Your task to perform on an android device: allow cookies in the chrome app Image 0: 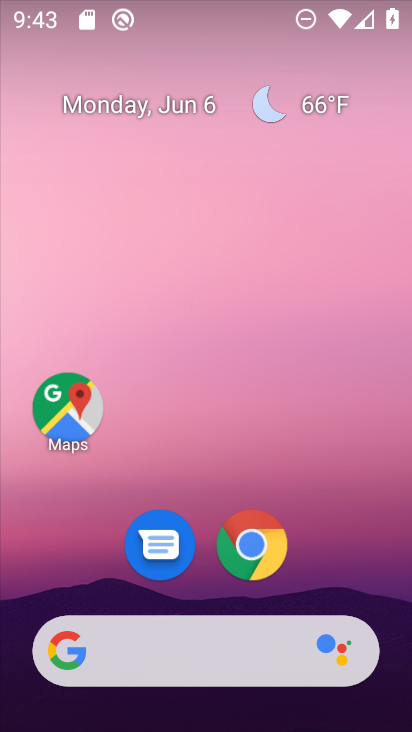
Step 0: drag from (253, 391) to (308, 196)
Your task to perform on an android device: allow cookies in the chrome app Image 1: 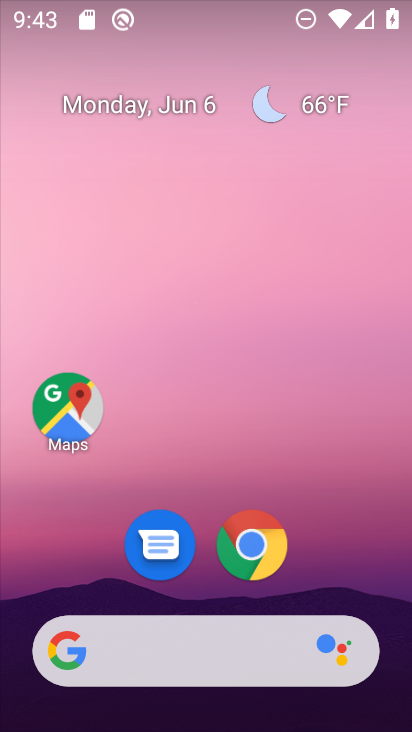
Step 1: drag from (200, 590) to (271, 152)
Your task to perform on an android device: allow cookies in the chrome app Image 2: 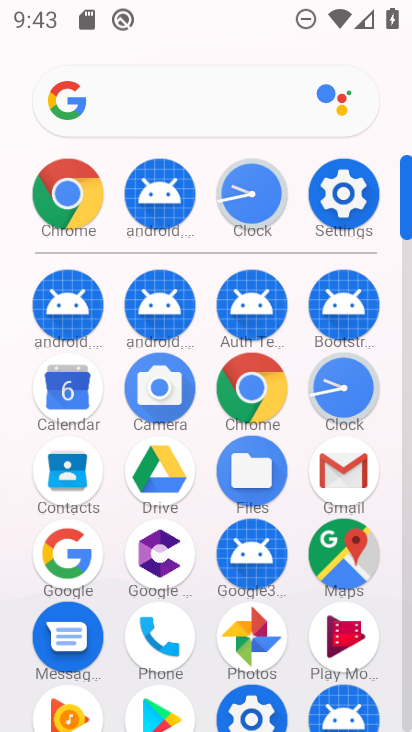
Step 2: click (68, 193)
Your task to perform on an android device: allow cookies in the chrome app Image 3: 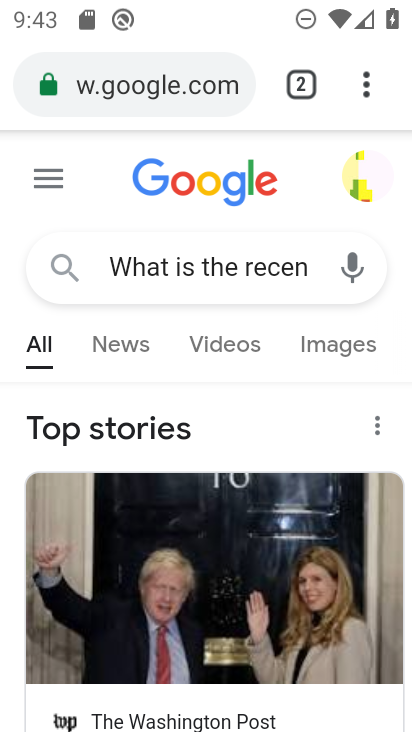
Step 3: click (365, 84)
Your task to perform on an android device: allow cookies in the chrome app Image 4: 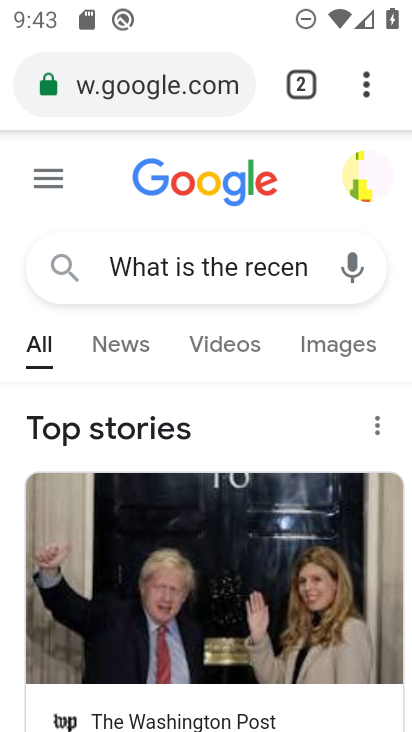
Step 4: click (357, 86)
Your task to perform on an android device: allow cookies in the chrome app Image 5: 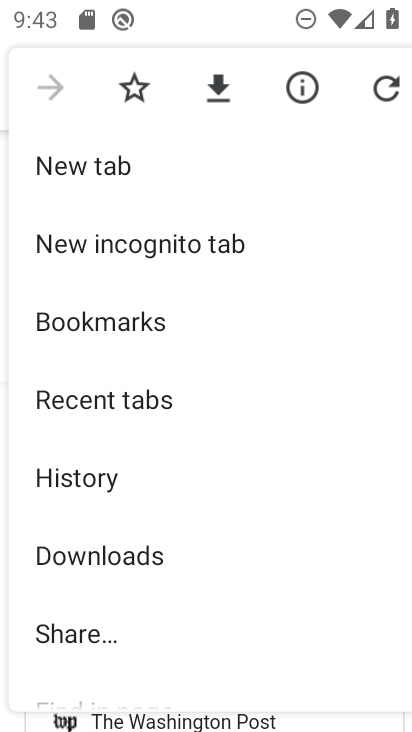
Step 5: drag from (93, 607) to (237, 193)
Your task to perform on an android device: allow cookies in the chrome app Image 6: 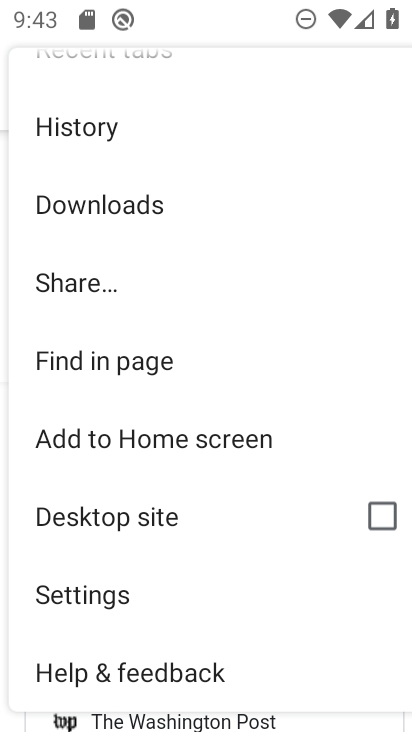
Step 6: click (88, 591)
Your task to perform on an android device: allow cookies in the chrome app Image 7: 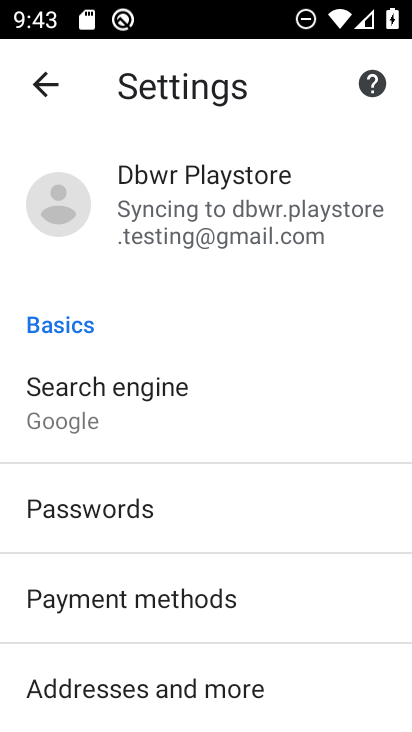
Step 7: drag from (191, 628) to (394, 655)
Your task to perform on an android device: allow cookies in the chrome app Image 8: 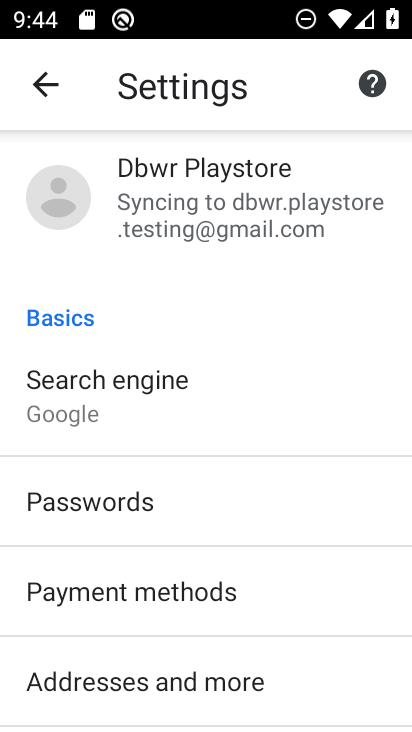
Step 8: drag from (216, 624) to (322, 232)
Your task to perform on an android device: allow cookies in the chrome app Image 9: 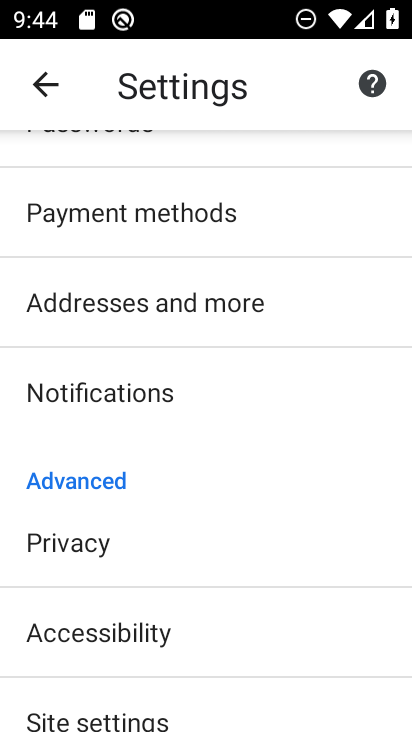
Step 9: click (88, 723)
Your task to perform on an android device: allow cookies in the chrome app Image 10: 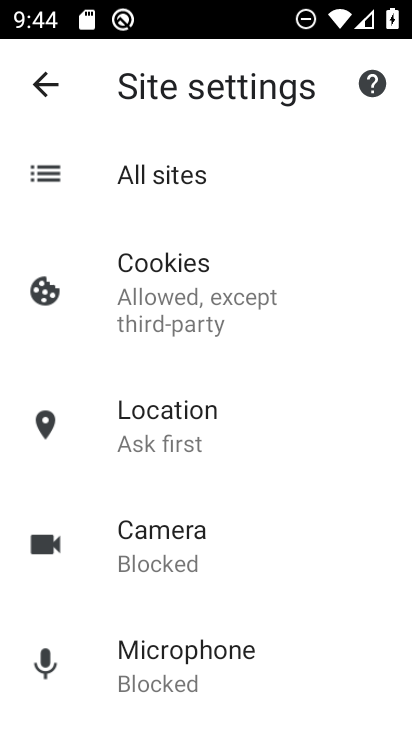
Step 10: drag from (181, 713) to (286, 226)
Your task to perform on an android device: allow cookies in the chrome app Image 11: 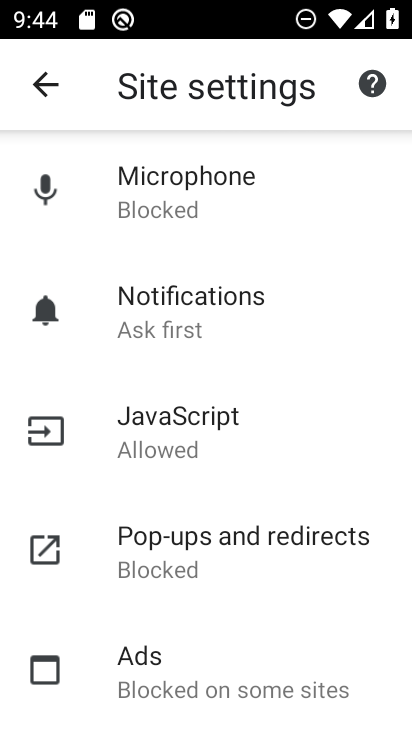
Step 11: drag from (238, 251) to (211, 681)
Your task to perform on an android device: allow cookies in the chrome app Image 12: 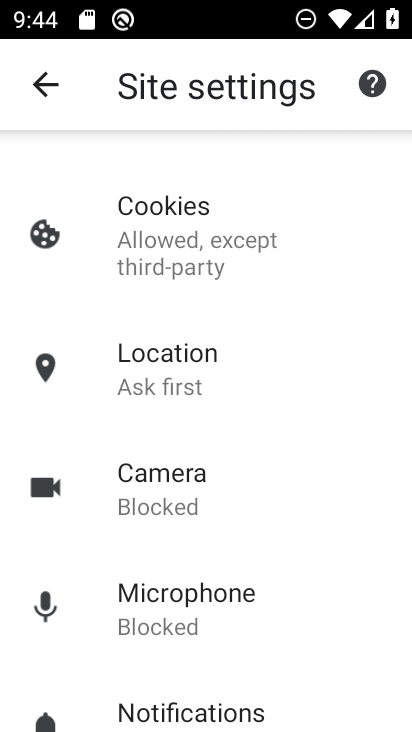
Step 12: click (157, 245)
Your task to perform on an android device: allow cookies in the chrome app Image 13: 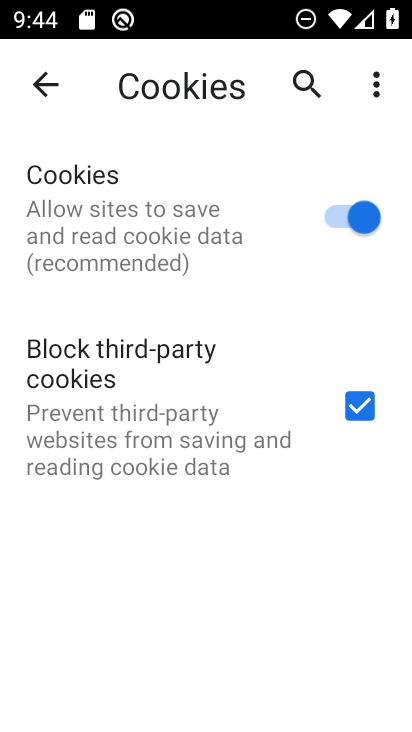
Step 13: task complete